Your task to perform on an android device: open the mobile data screen to see how much data has been used Image 0: 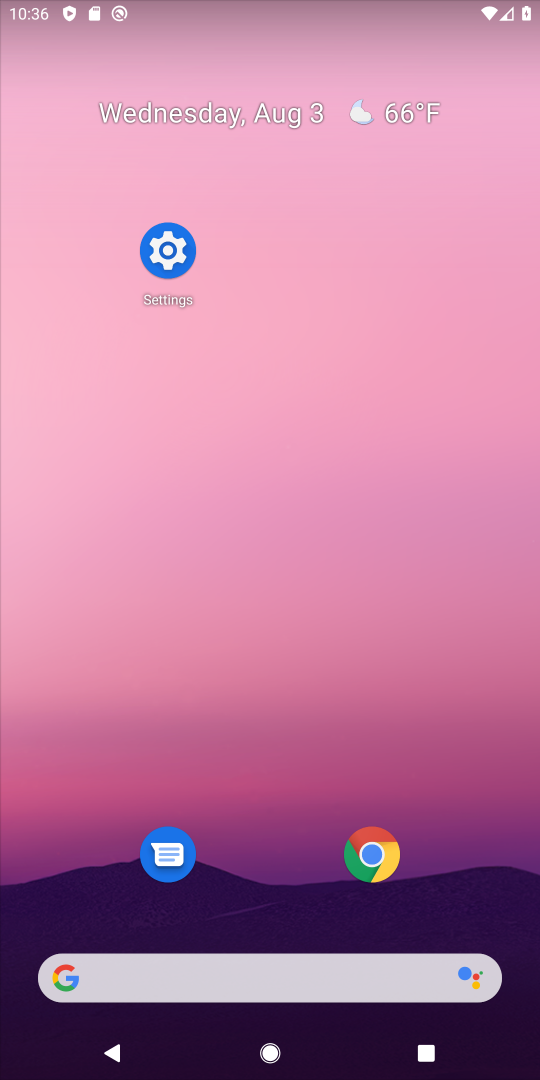
Step 0: click (176, 247)
Your task to perform on an android device: open the mobile data screen to see how much data has been used Image 1: 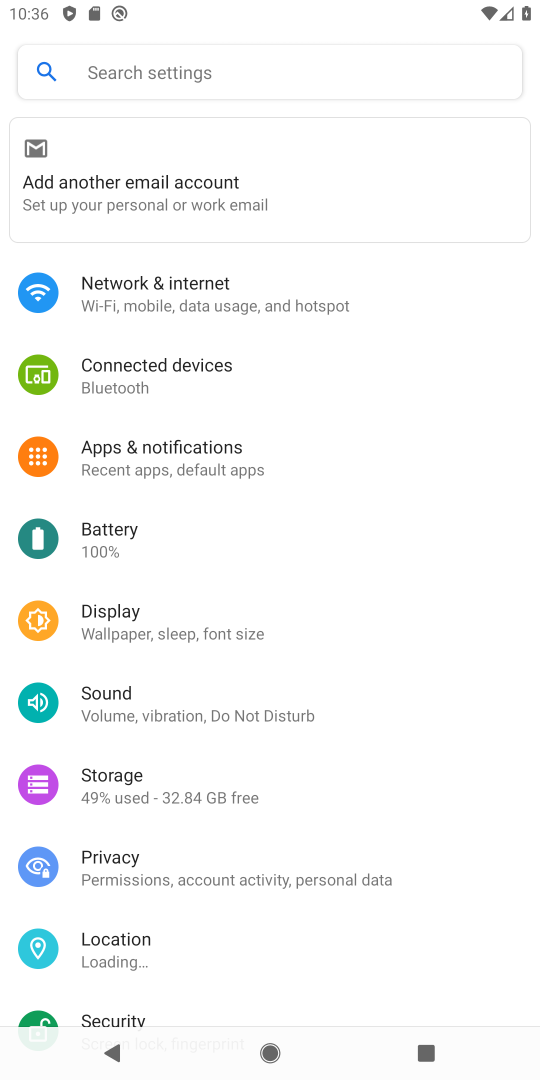
Step 1: click (368, 283)
Your task to perform on an android device: open the mobile data screen to see how much data has been used Image 2: 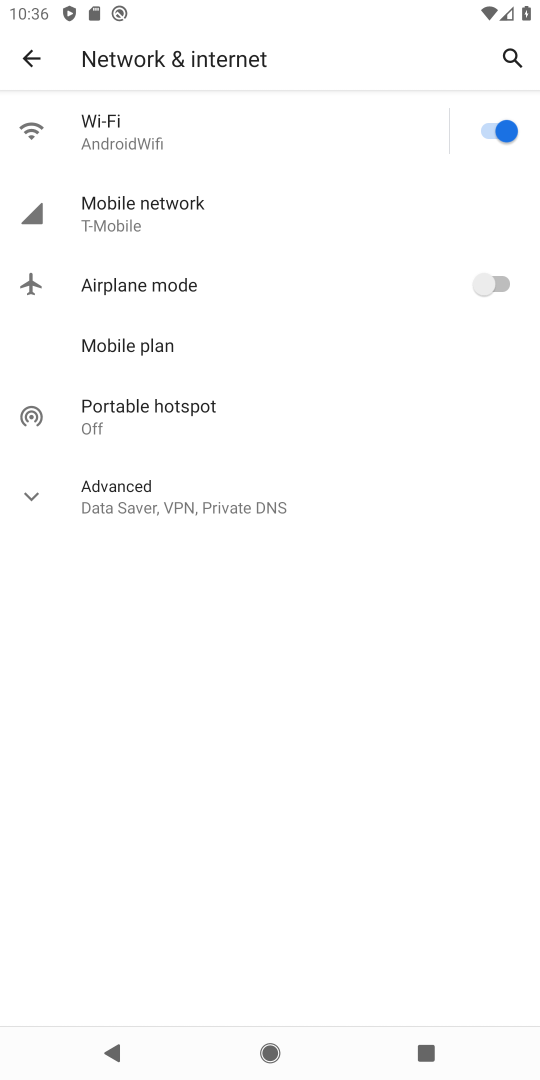
Step 2: click (280, 236)
Your task to perform on an android device: open the mobile data screen to see how much data has been used Image 3: 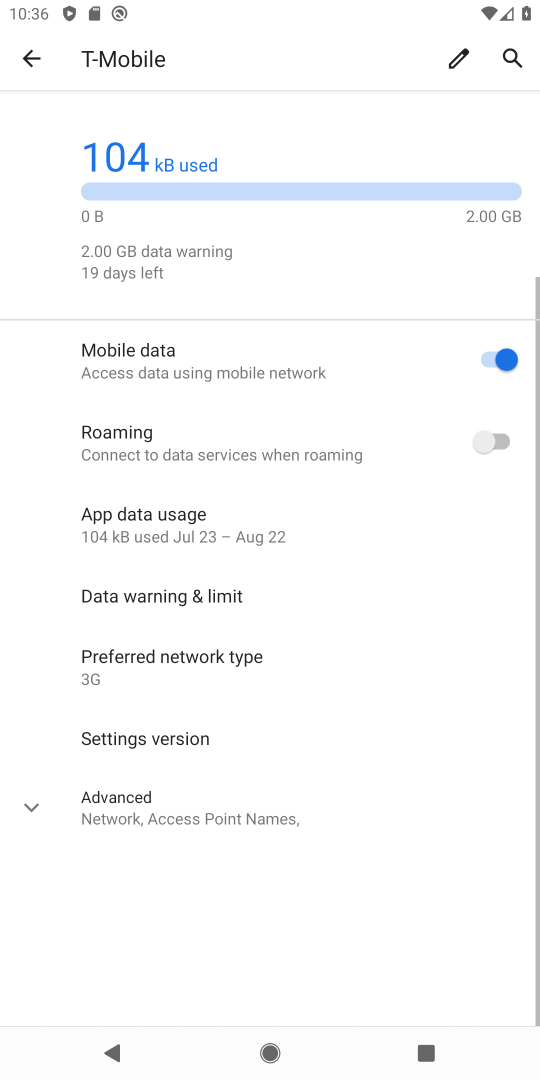
Step 3: task complete